Your task to perform on an android device: turn off airplane mode Image 0: 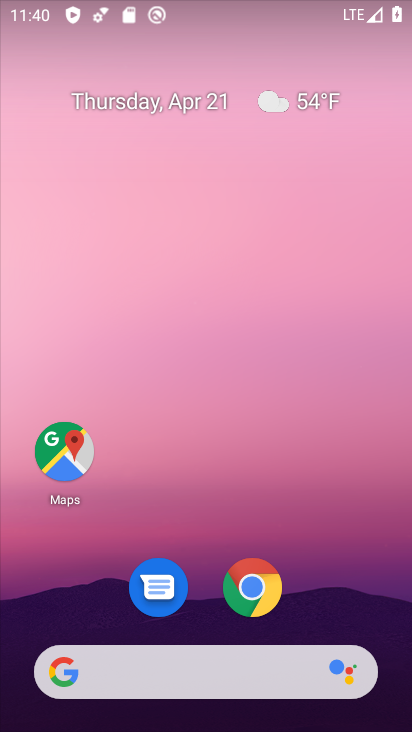
Step 0: drag from (240, 17) to (296, 618)
Your task to perform on an android device: turn off airplane mode Image 1: 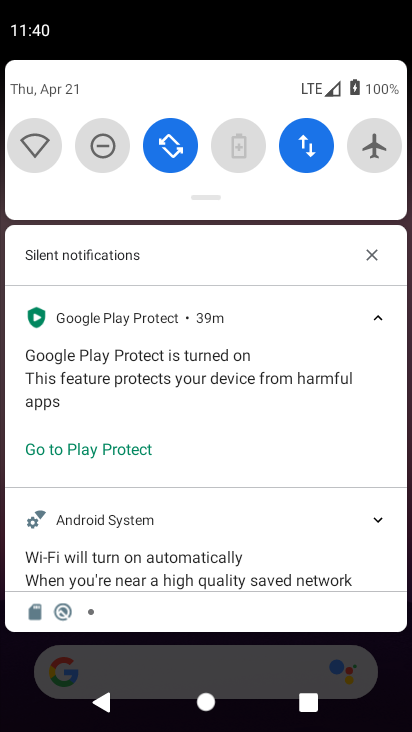
Step 1: task complete